Your task to perform on an android device: Open location settings Image 0: 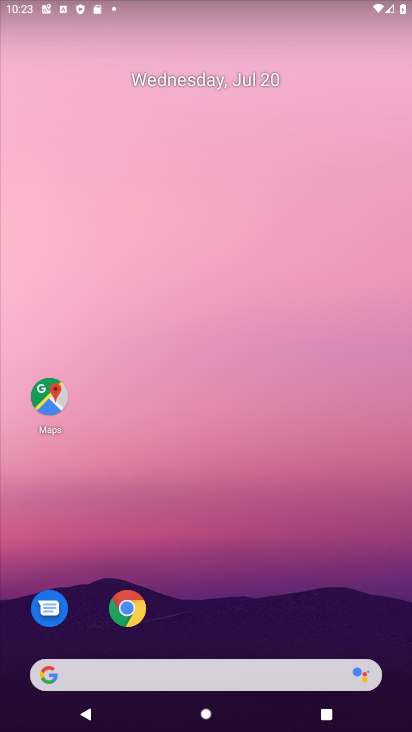
Step 0: drag from (218, 613) to (265, 127)
Your task to perform on an android device: Open location settings Image 1: 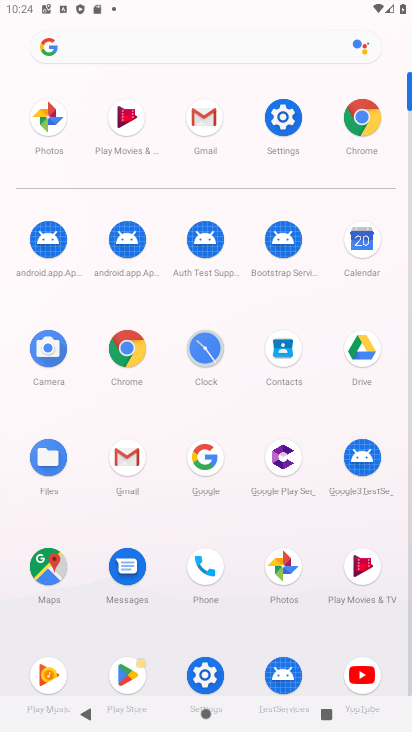
Step 1: click (292, 127)
Your task to perform on an android device: Open location settings Image 2: 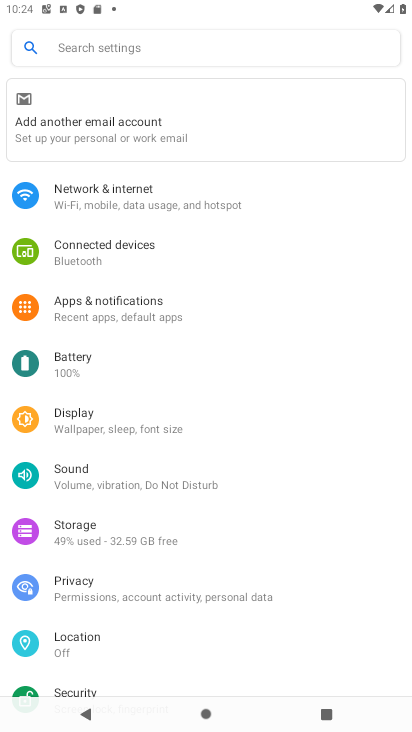
Step 2: click (83, 652)
Your task to perform on an android device: Open location settings Image 3: 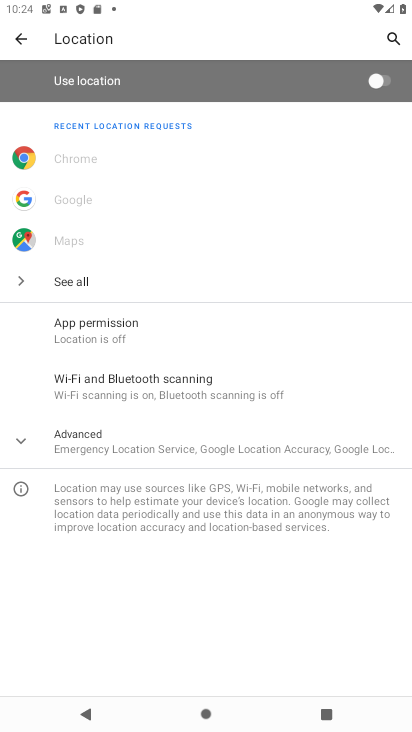
Step 3: task complete